Your task to perform on an android device: turn off picture-in-picture Image 0: 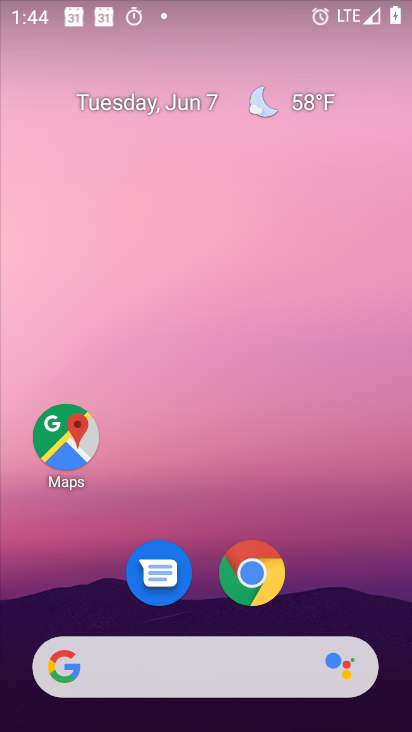
Step 0: click (265, 566)
Your task to perform on an android device: turn off picture-in-picture Image 1: 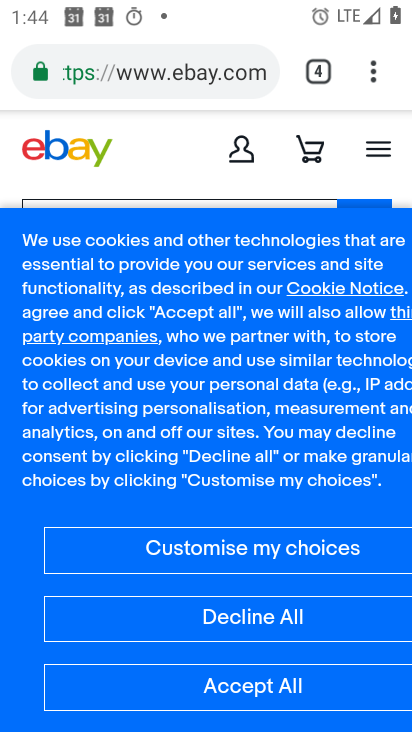
Step 1: drag from (369, 62) to (155, 566)
Your task to perform on an android device: turn off picture-in-picture Image 2: 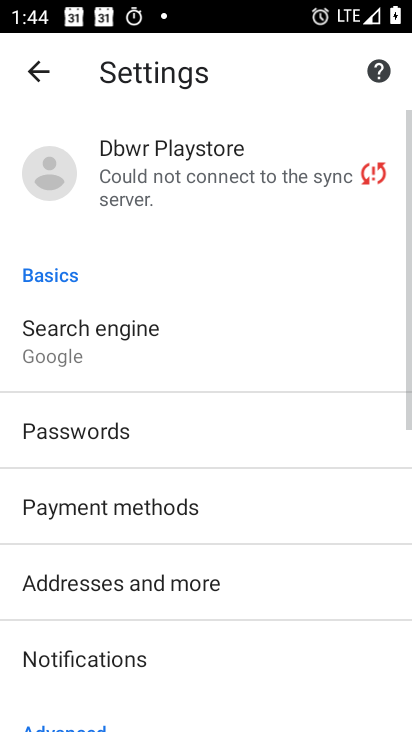
Step 2: drag from (212, 631) to (219, 132)
Your task to perform on an android device: turn off picture-in-picture Image 3: 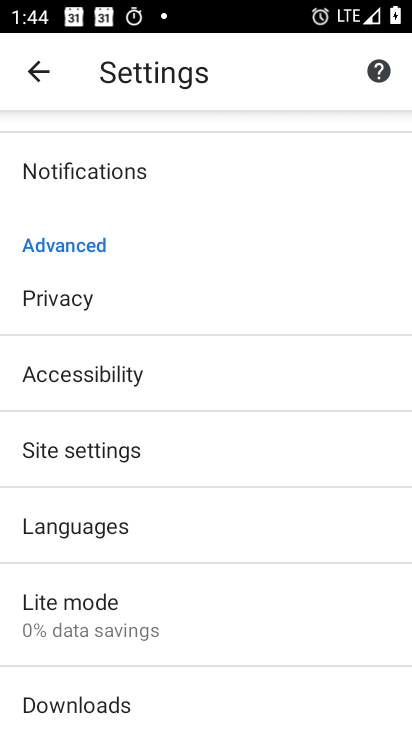
Step 3: click (100, 444)
Your task to perform on an android device: turn off picture-in-picture Image 4: 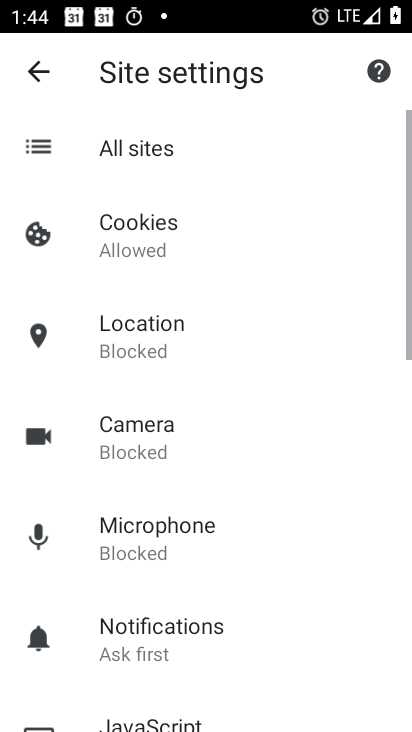
Step 4: drag from (194, 639) to (154, 194)
Your task to perform on an android device: turn off picture-in-picture Image 5: 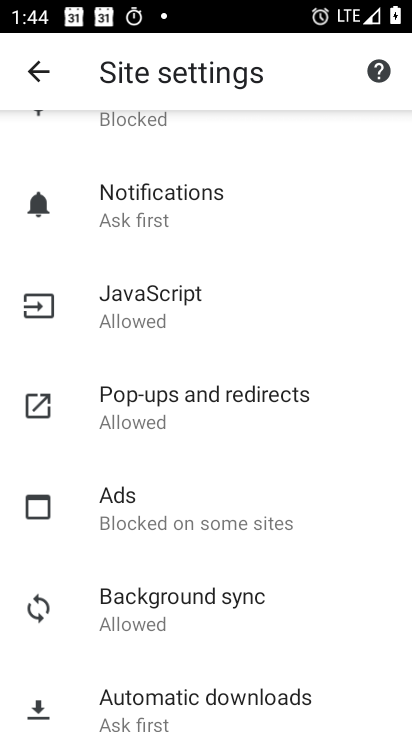
Step 5: click (143, 402)
Your task to perform on an android device: turn off picture-in-picture Image 6: 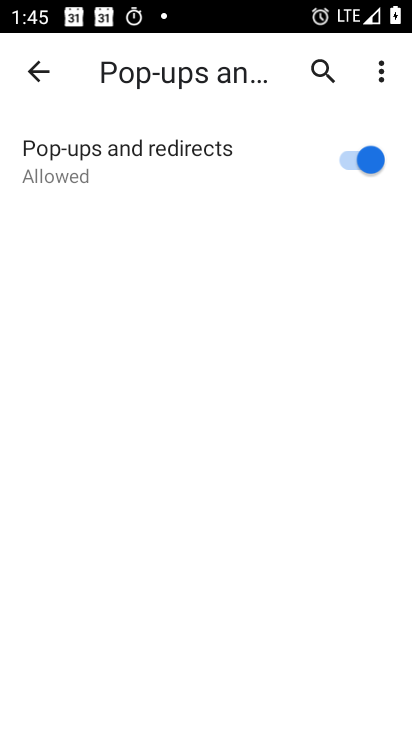
Step 6: click (371, 156)
Your task to perform on an android device: turn off picture-in-picture Image 7: 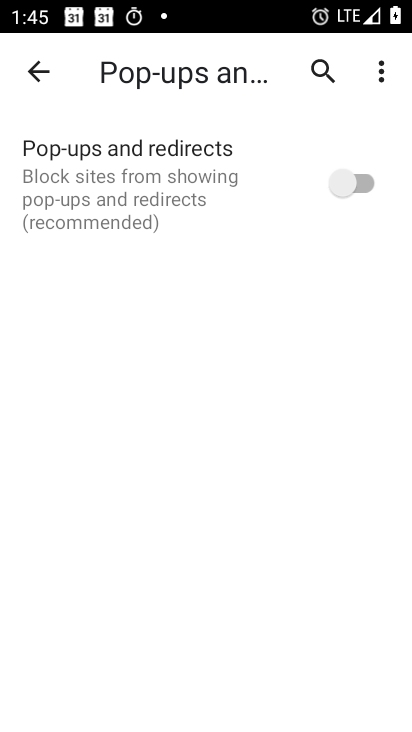
Step 7: task complete